Your task to perform on an android device: Open Chrome and go to settings Image 0: 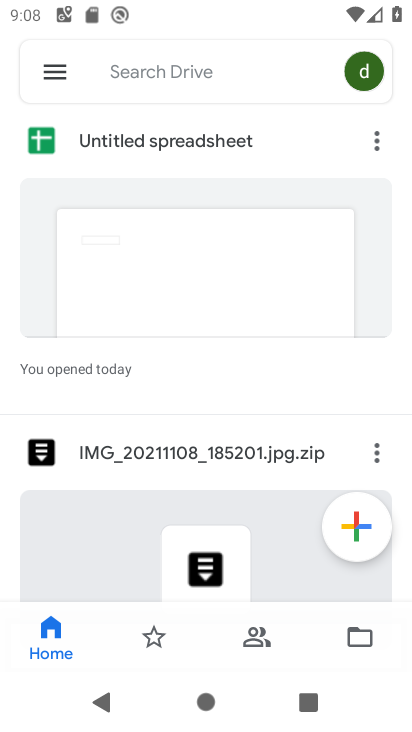
Step 0: press home button
Your task to perform on an android device: Open Chrome and go to settings Image 1: 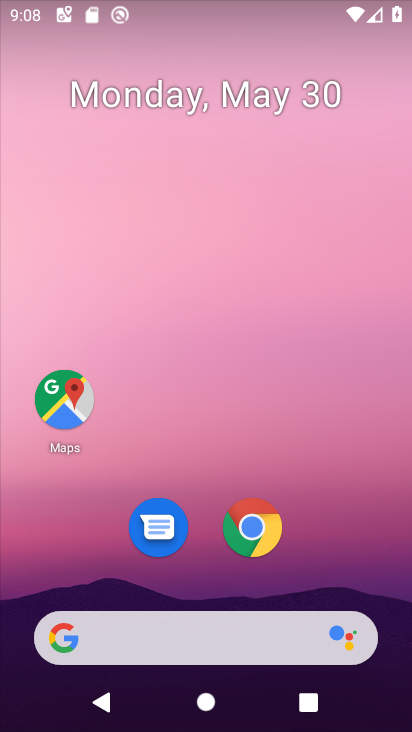
Step 1: click (257, 546)
Your task to perform on an android device: Open Chrome and go to settings Image 2: 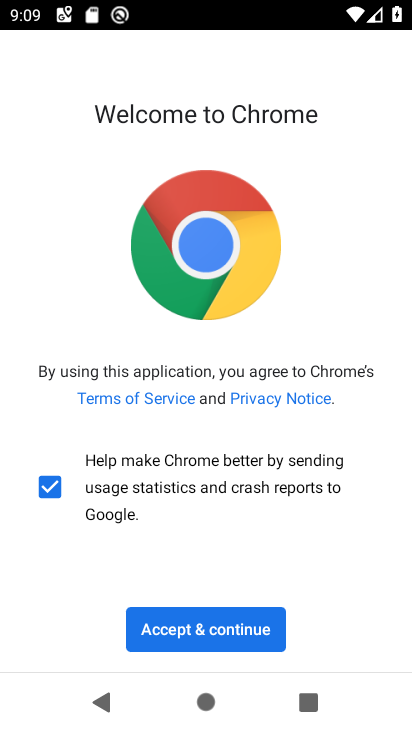
Step 2: click (261, 634)
Your task to perform on an android device: Open Chrome and go to settings Image 3: 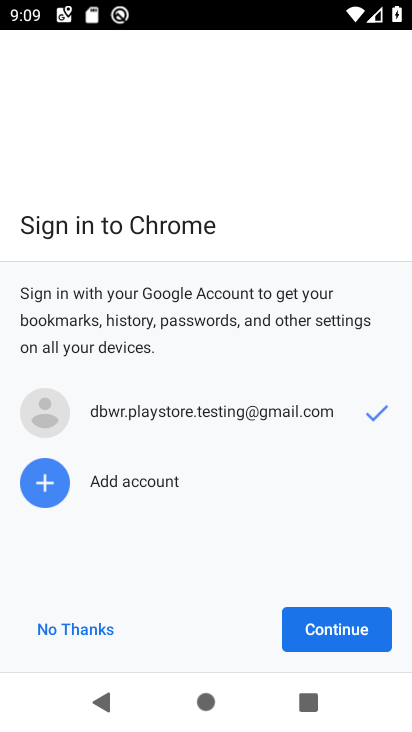
Step 3: click (357, 642)
Your task to perform on an android device: Open Chrome and go to settings Image 4: 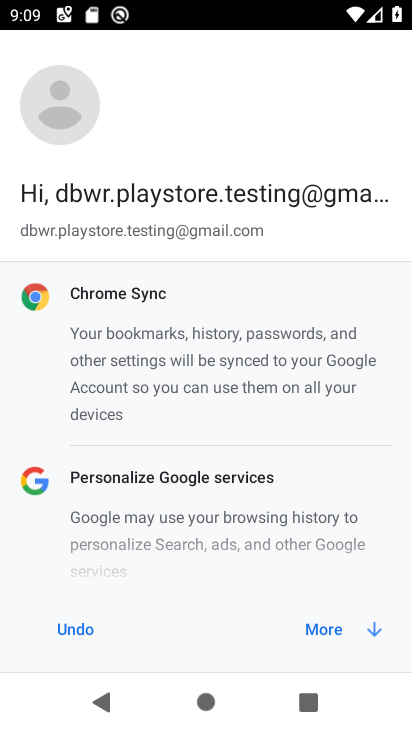
Step 4: click (360, 641)
Your task to perform on an android device: Open Chrome and go to settings Image 5: 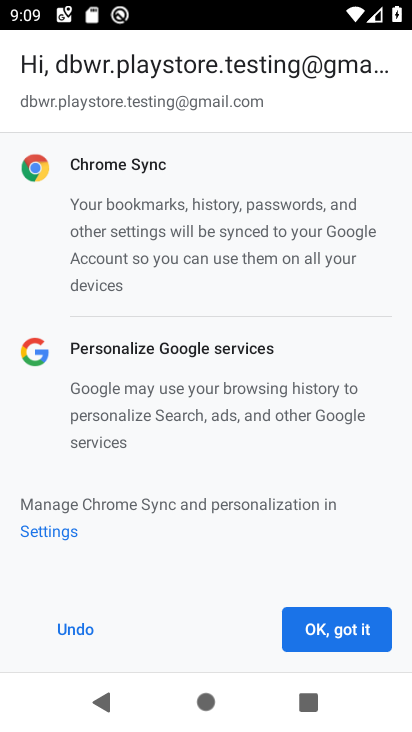
Step 5: click (357, 639)
Your task to perform on an android device: Open Chrome and go to settings Image 6: 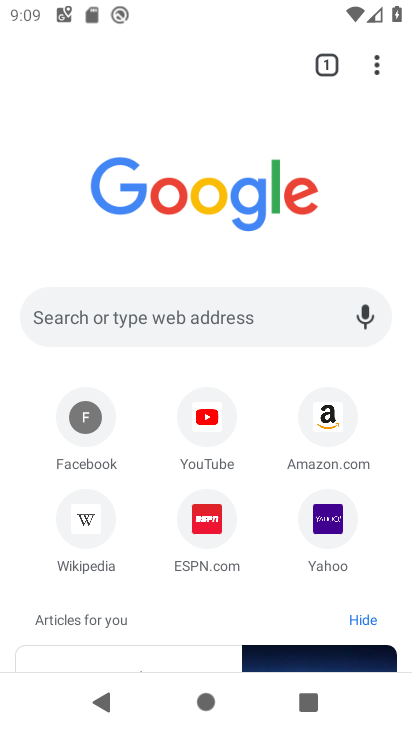
Step 6: task complete